Your task to perform on an android device: check storage Image 0: 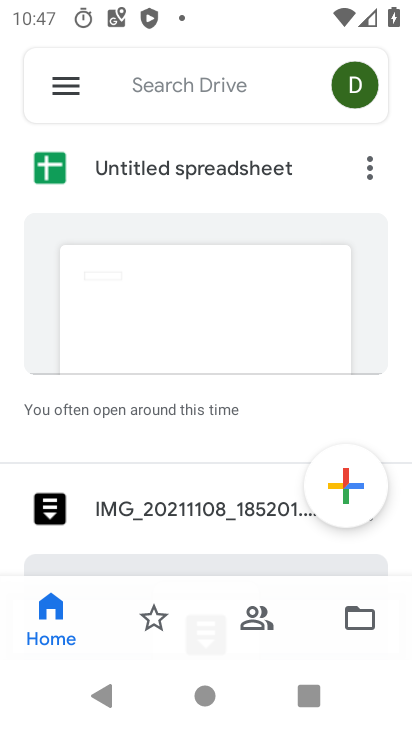
Step 0: press home button
Your task to perform on an android device: check storage Image 1: 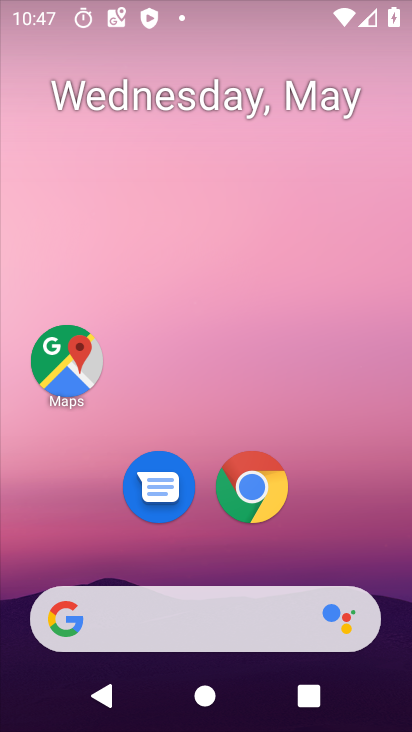
Step 1: drag from (259, 623) to (307, 113)
Your task to perform on an android device: check storage Image 2: 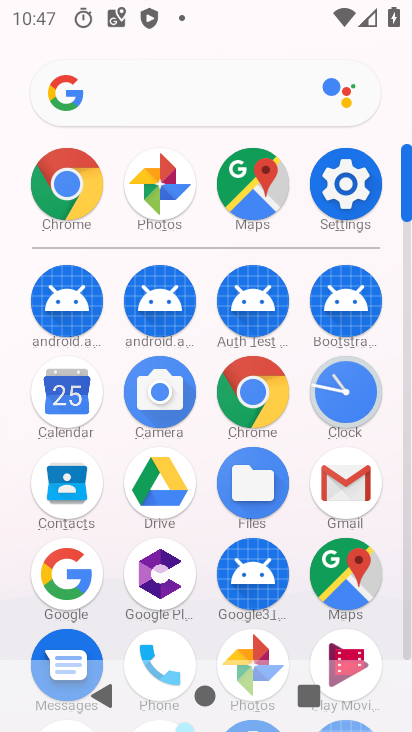
Step 2: click (352, 183)
Your task to perform on an android device: check storage Image 3: 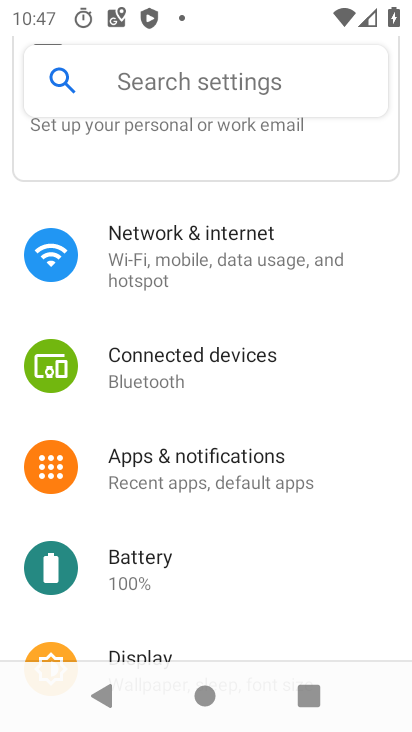
Step 3: drag from (276, 591) to (309, 153)
Your task to perform on an android device: check storage Image 4: 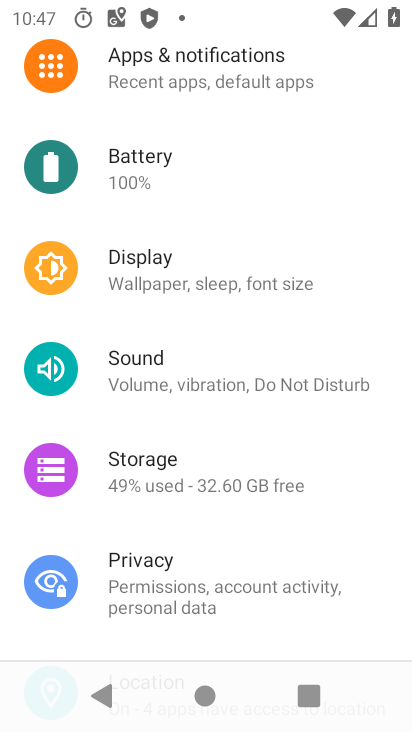
Step 4: click (268, 467)
Your task to perform on an android device: check storage Image 5: 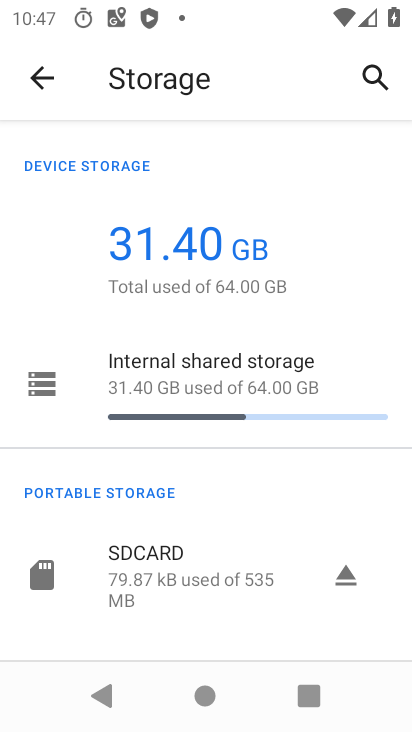
Step 5: task complete